Your task to perform on an android device: Search for Italian restaurants on Maps Image 0: 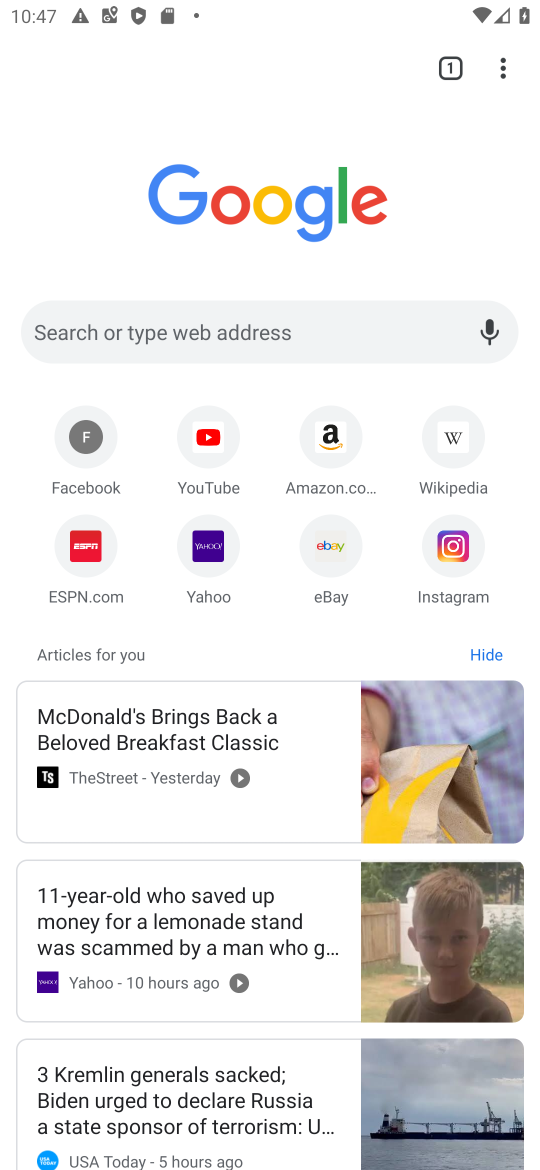
Step 0: press home button
Your task to perform on an android device: Search for Italian restaurants on Maps Image 1: 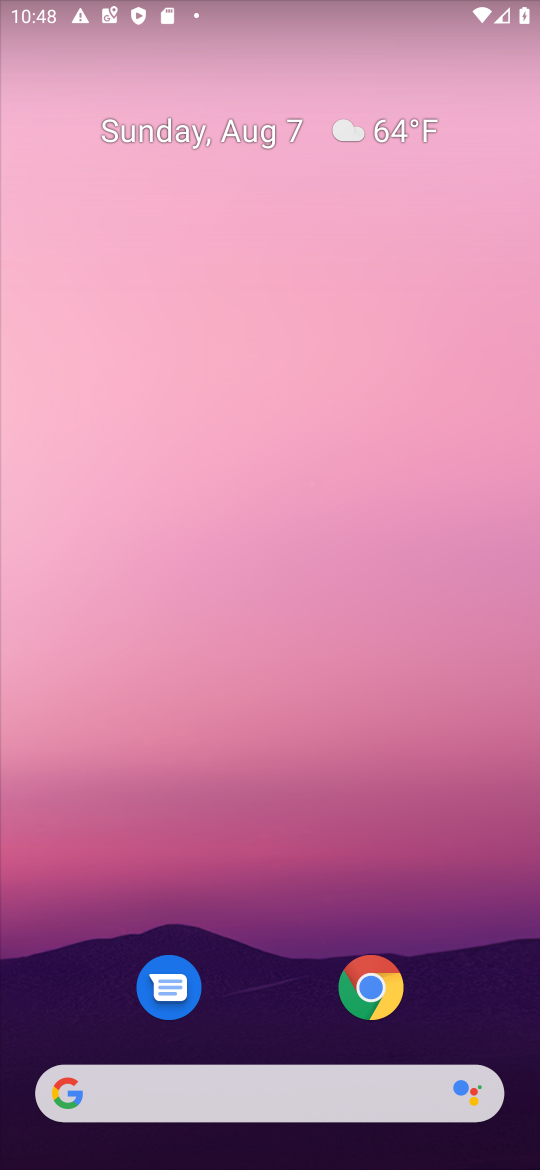
Step 1: drag from (267, 962) to (267, 195)
Your task to perform on an android device: Search for Italian restaurants on Maps Image 2: 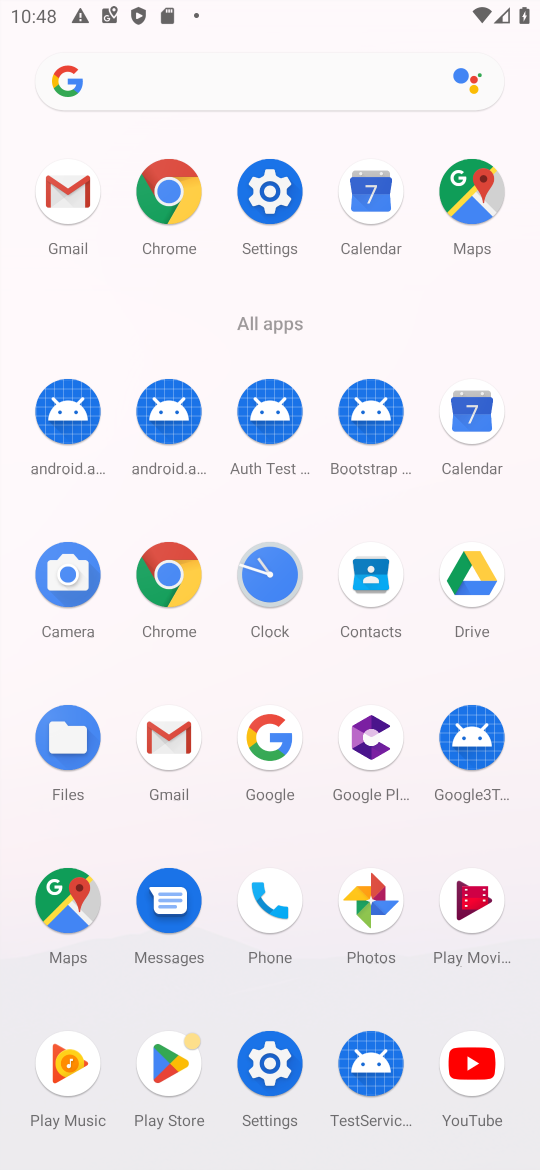
Step 2: click (479, 186)
Your task to perform on an android device: Search for Italian restaurants on Maps Image 3: 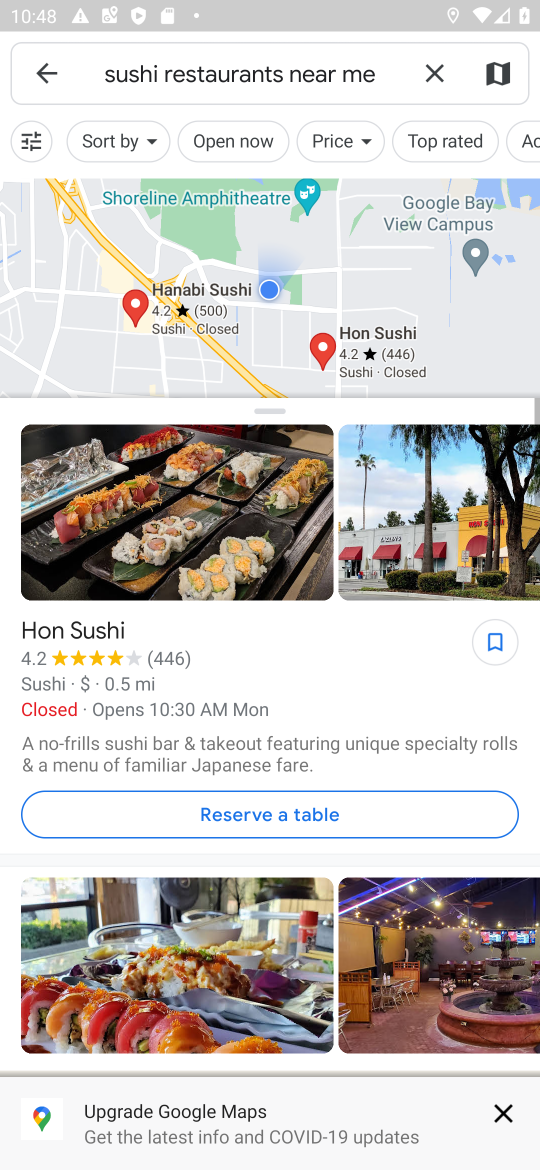
Step 3: click (434, 69)
Your task to perform on an android device: Search for Italian restaurants on Maps Image 4: 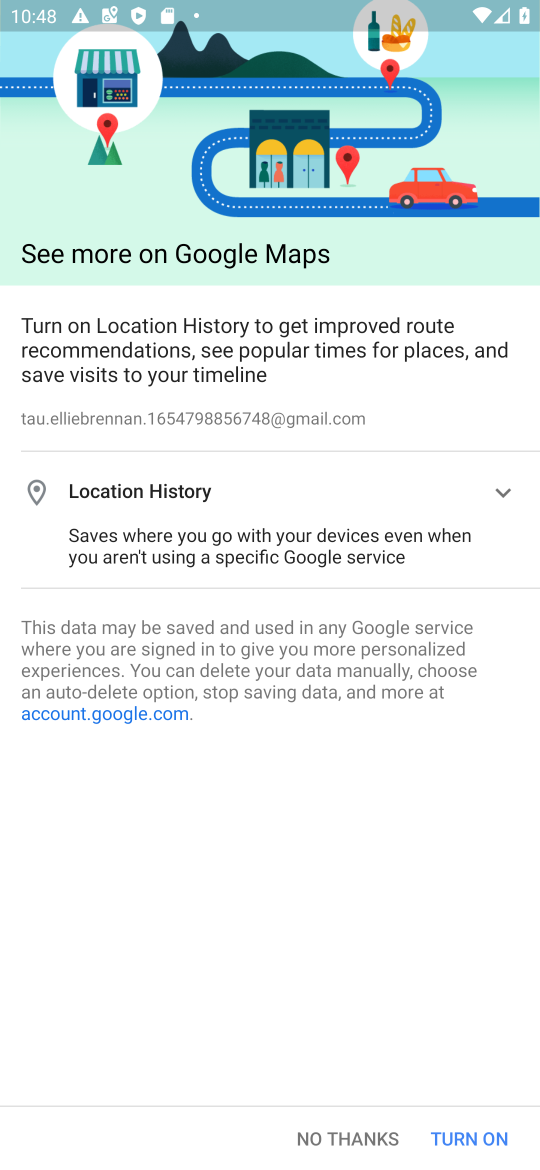
Step 4: click (345, 1142)
Your task to perform on an android device: Search for Italian restaurants on Maps Image 5: 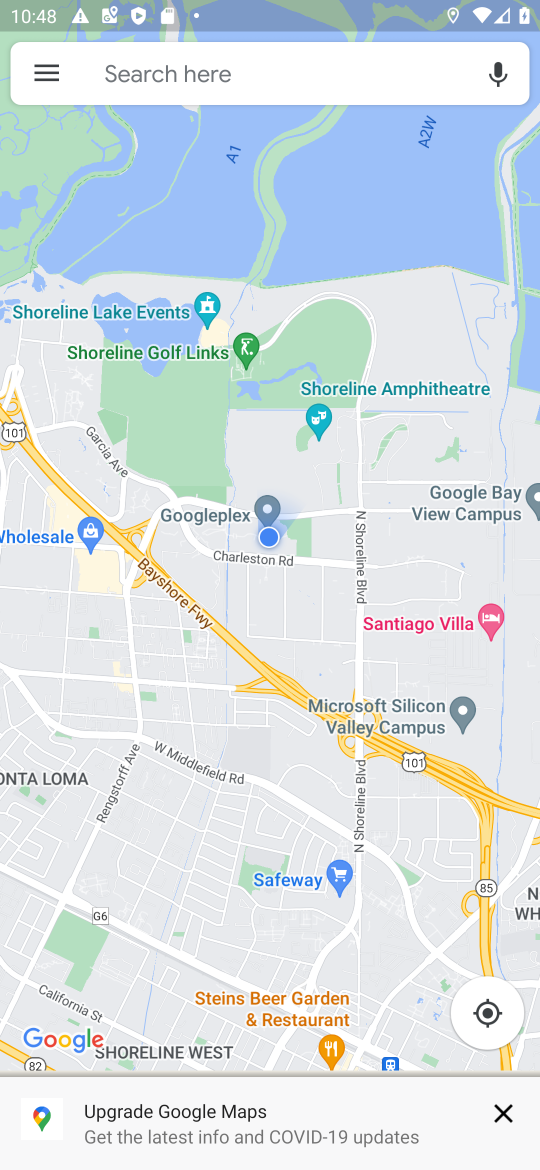
Step 5: click (359, 84)
Your task to perform on an android device: Search for Italian restaurants on Maps Image 6: 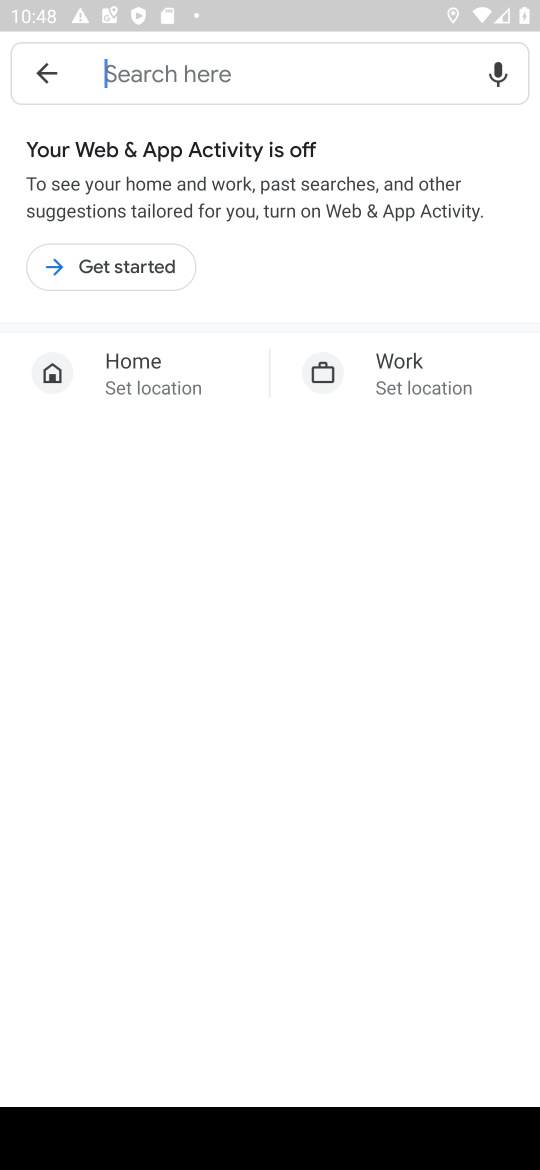
Step 6: type "italian restaurants"
Your task to perform on an android device: Search for Italian restaurants on Maps Image 7: 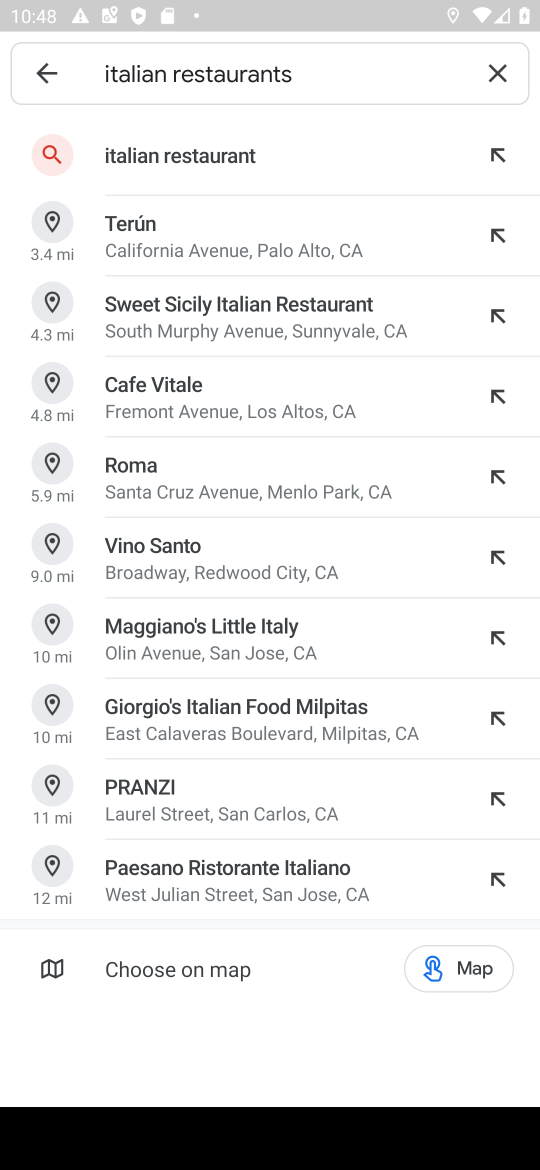
Step 7: click (268, 154)
Your task to perform on an android device: Search for Italian restaurants on Maps Image 8: 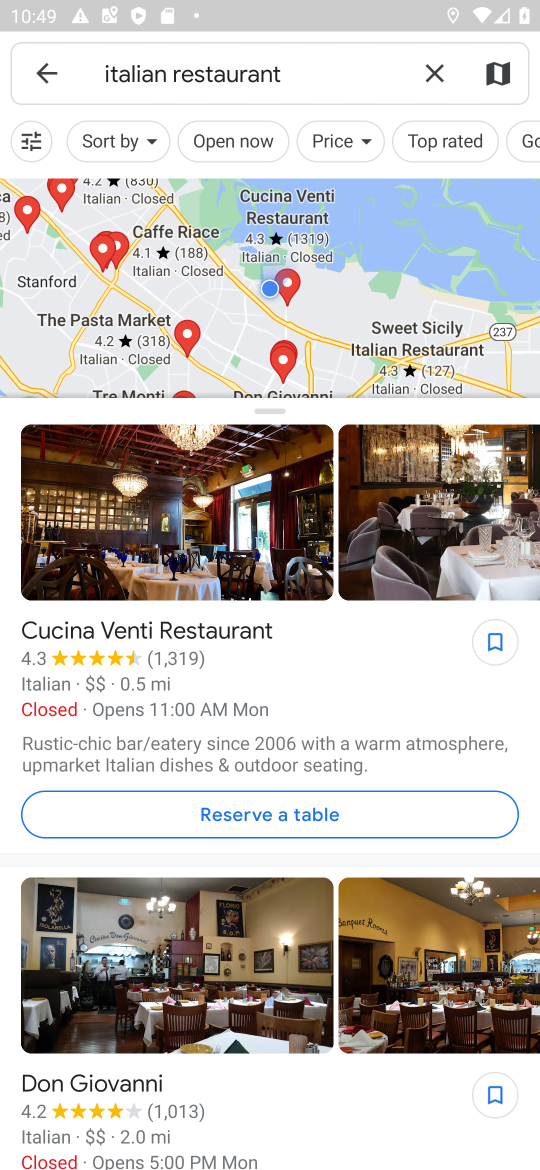
Step 8: task complete